Your task to perform on an android device: Add bose soundsport free to the cart on bestbuy Image 0: 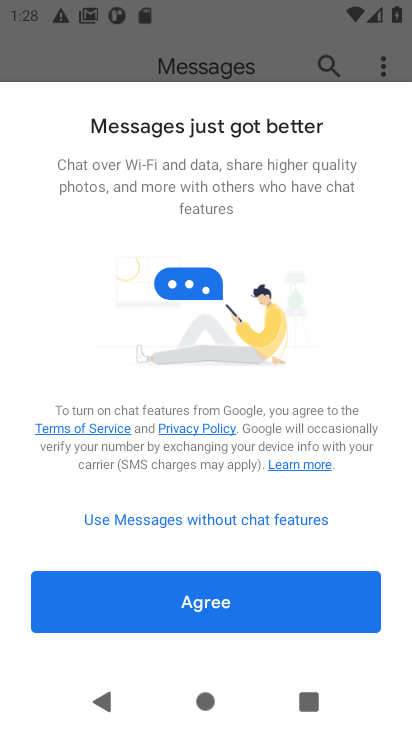
Step 0: press home button
Your task to perform on an android device: Add bose soundsport free to the cart on bestbuy Image 1: 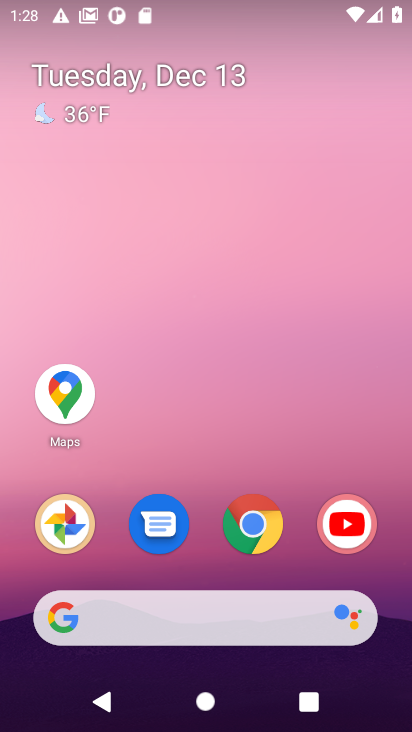
Step 1: click (256, 520)
Your task to perform on an android device: Add bose soundsport free to the cart on bestbuy Image 2: 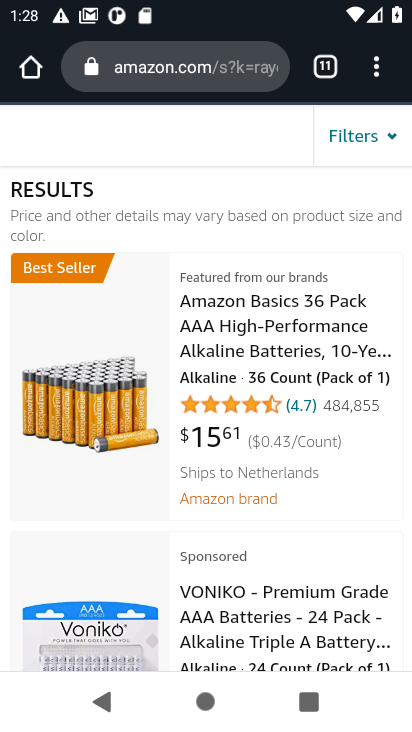
Step 2: click (159, 74)
Your task to perform on an android device: Add bose soundsport free to the cart on bestbuy Image 3: 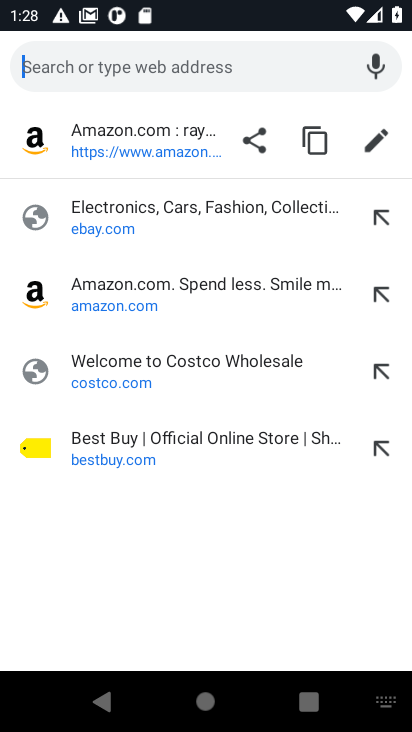
Step 3: click (105, 454)
Your task to perform on an android device: Add bose soundsport free to the cart on bestbuy Image 4: 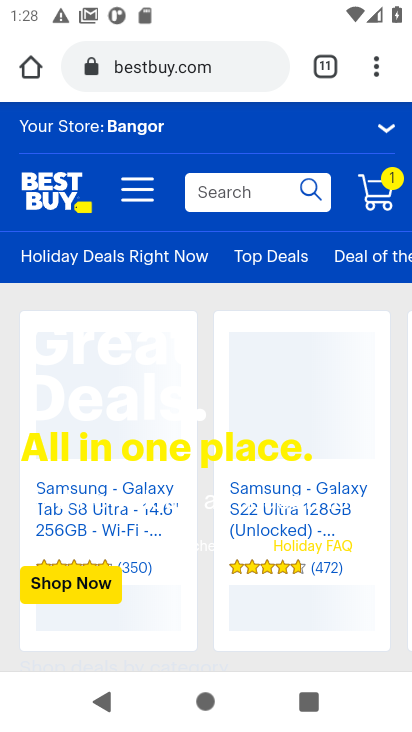
Step 4: click (229, 187)
Your task to perform on an android device: Add bose soundsport free to the cart on bestbuy Image 5: 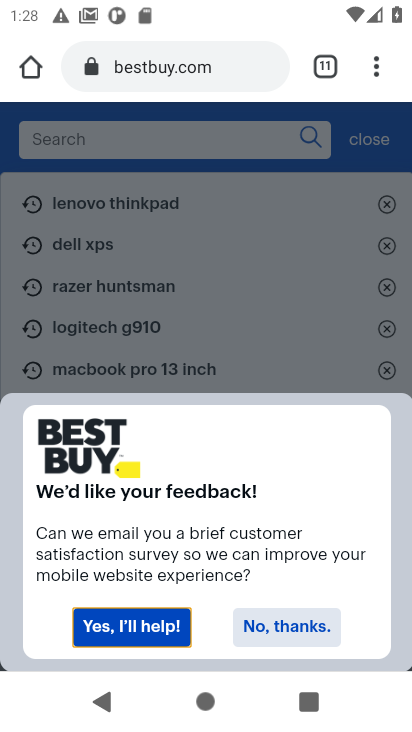
Step 5: click (301, 628)
Your task to perform on an android device: Add bose soundsport free to the cart on bestbuy Image 6: 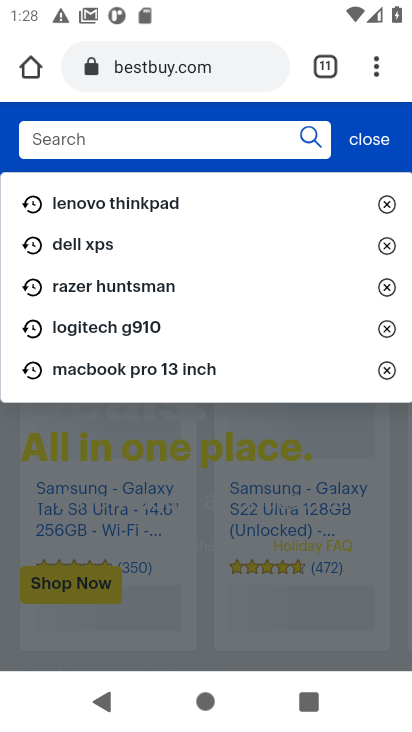
Step 6: click (59, 144)
Your task to perform on an android device: Add bose soundsport free to the cart on bestbuy Image 7: 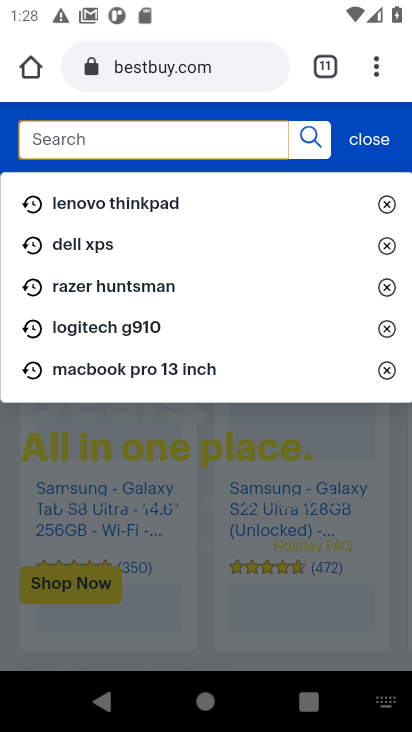
Step 7: type "bose soundsport free"
Your task to perform on an android device: Add bose soundsport free to the cart on bestbuy Image 8: 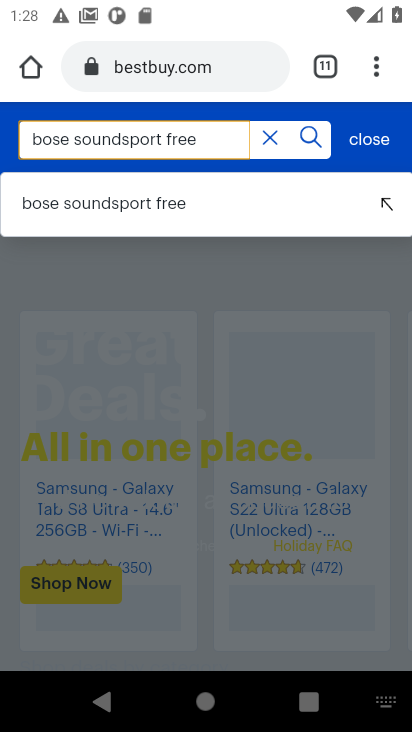
Step 8: click (123, 208)
Your task to perform on an android device: Add bose soundsport free to the cart on bestbuy Image 9: 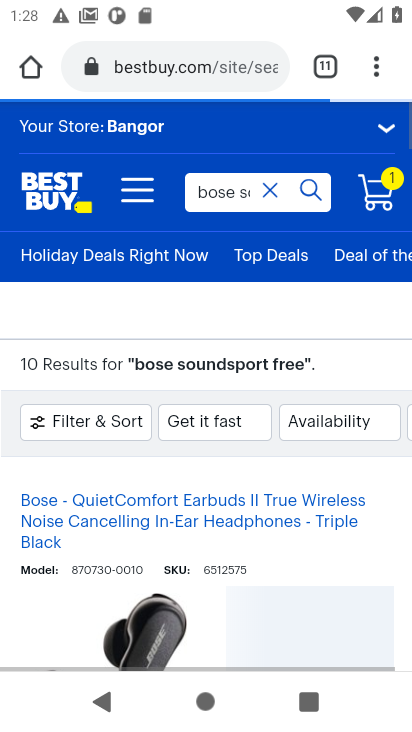
Step 9: task complete